Your task to perform on an android device: Open Amazon Image 0: 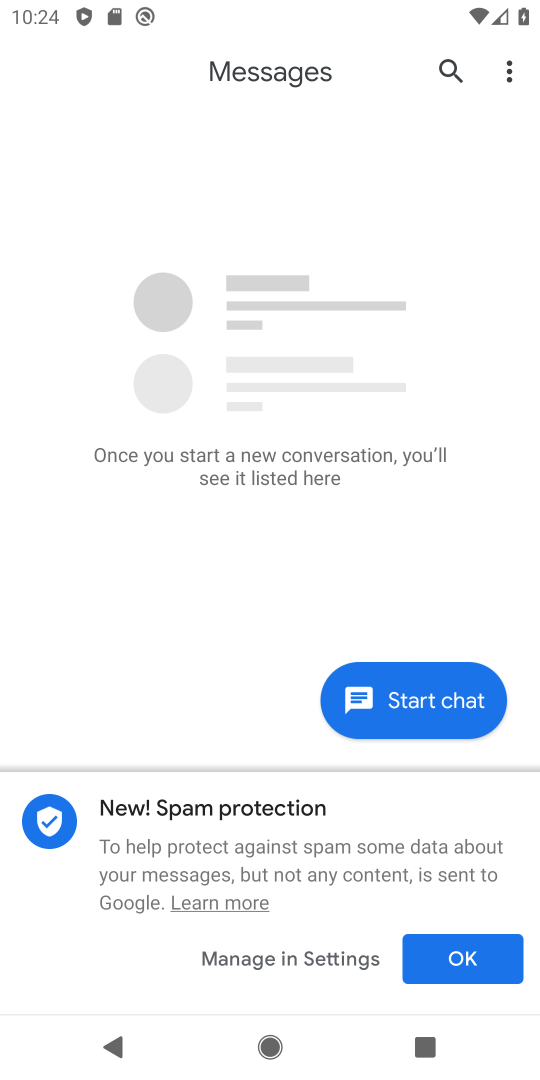
Step 0: press home button
Your task to perform on an android device: Open Amazon Image 1: 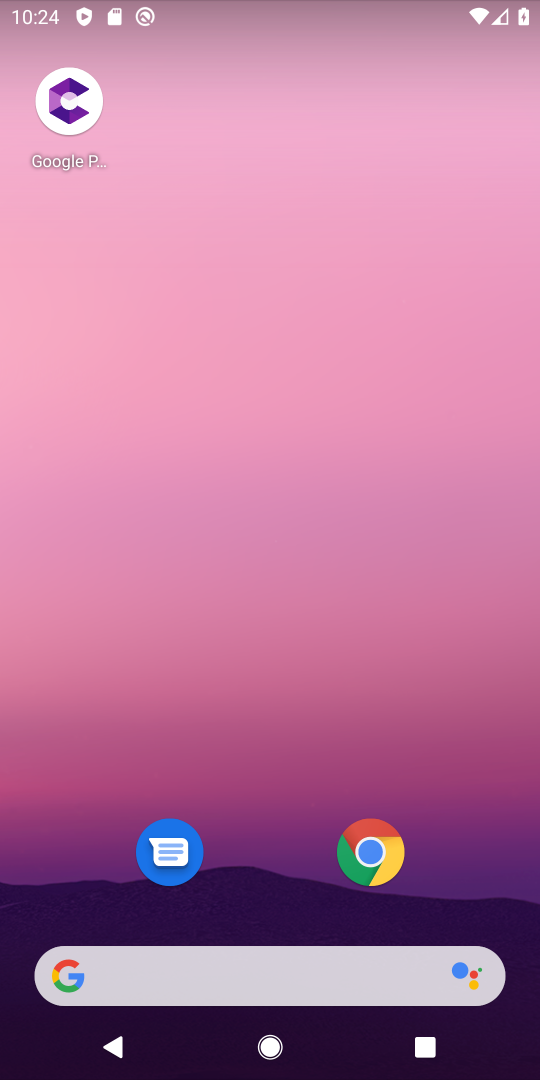
Step 1: click (376, 855)
Your task to perform on an android device: Open Amazon Image 2: 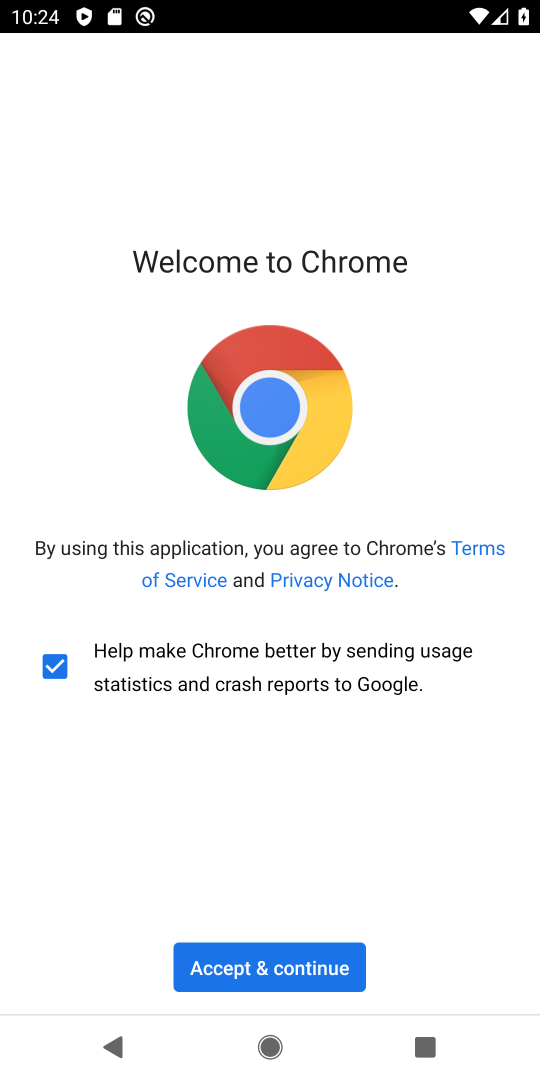
Step 2: click (269, 951)
Your task to perform on an android device: Open Amazon Image 3: 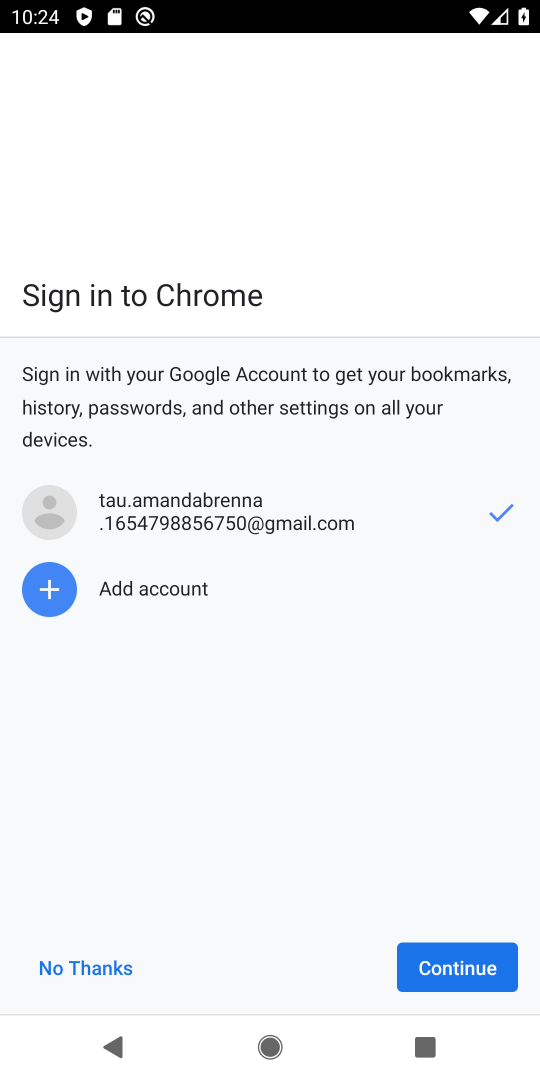
Step 3: click (508, 968)
Your task to perform on an android device: Open Amazon Image 4: 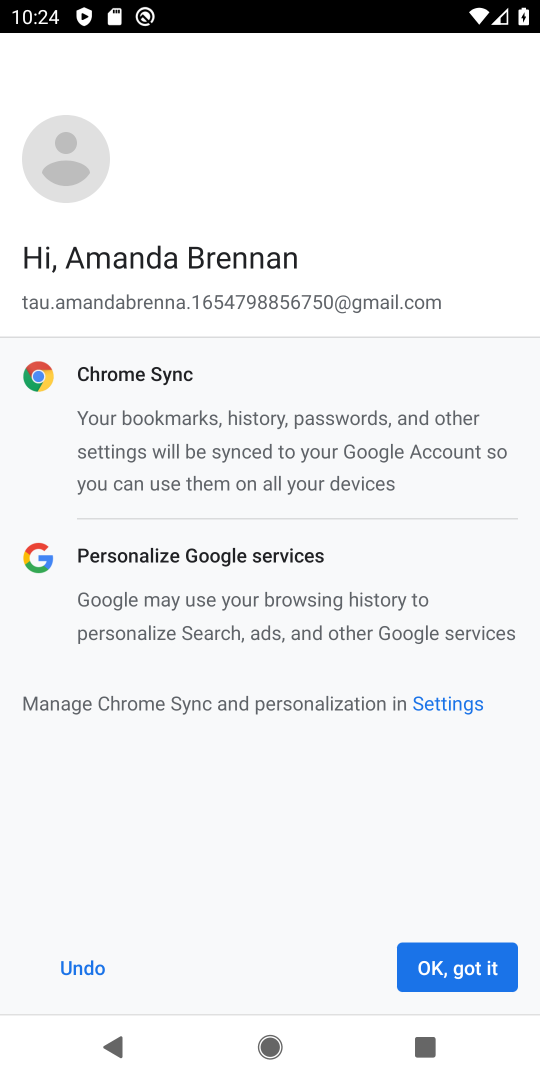
Step 4: click (508, 968)
Your task to perform on an android device: Open Amazon Image 5: 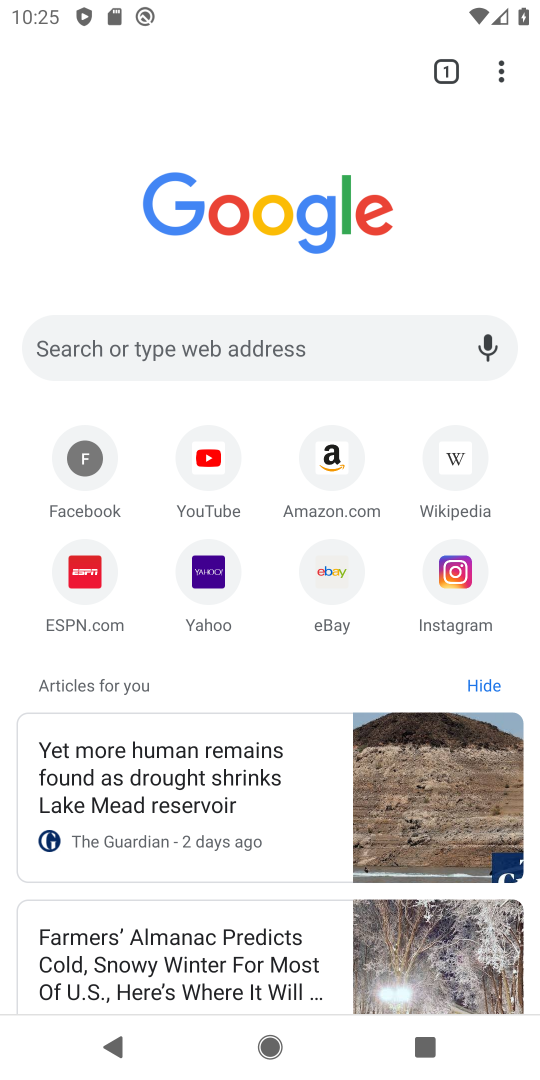
Step 5: click (343, 449)
Your task to perform on an android device: Open Amazon Image 6: 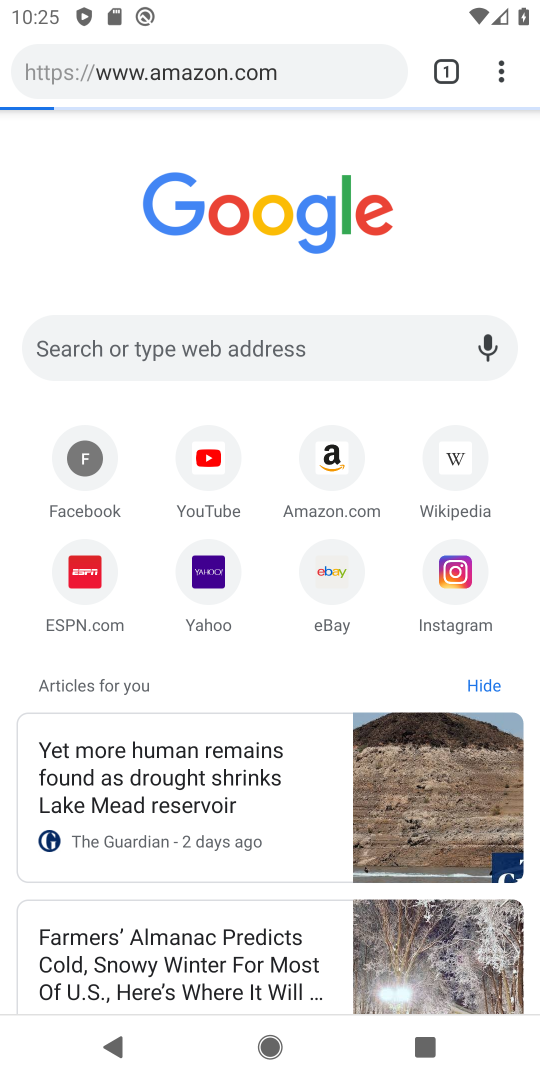
Step 6: click (343, 449)
Your task to perform on an android device: Open Amazon Image 7: 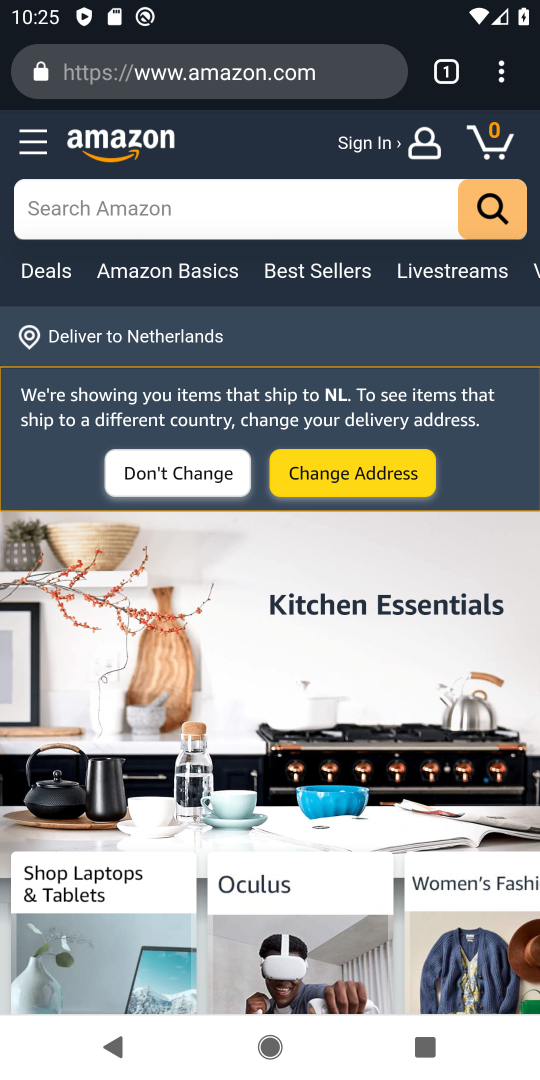
Step 7: task complete